Your task to perform on an android device: What's the weather today? Image 0: 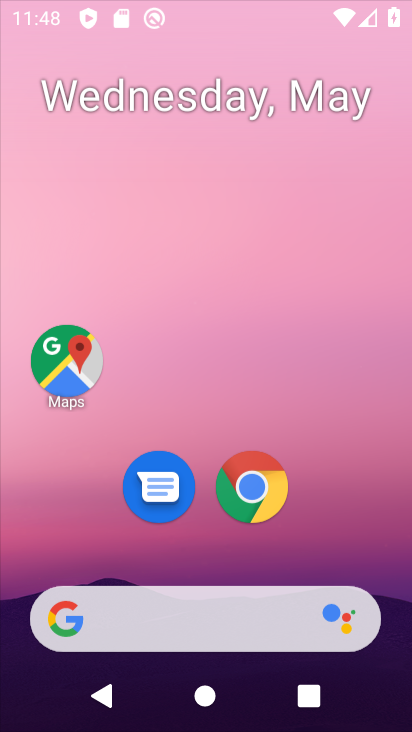
Step 0: drag from (295, 694) to (262, 79)
Your task to perform on an android device: What's the weather today? Image 1: 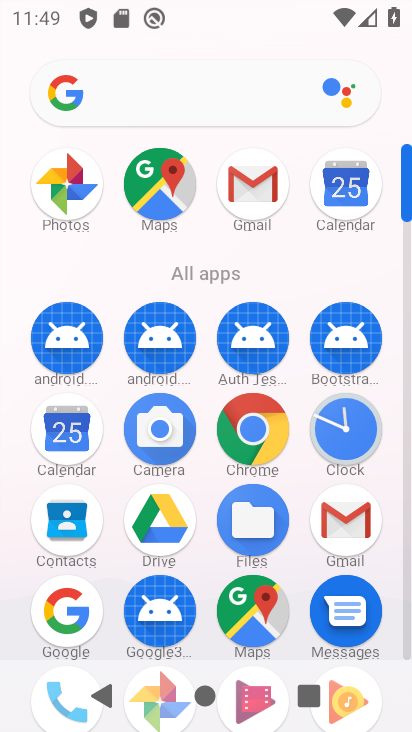
Step 1: press back button
Your task to perform on an android device: What's the weather today? Image 2: 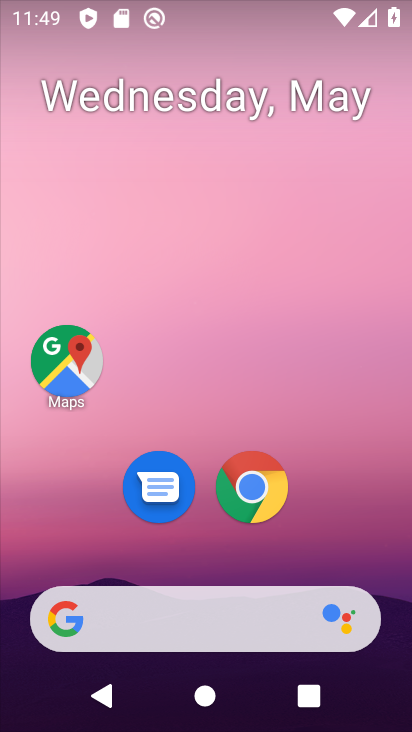
Step 2: drag from (27, 199) to (372, 301)
Your task to perform on an android device: What's the weather today? Image 3: 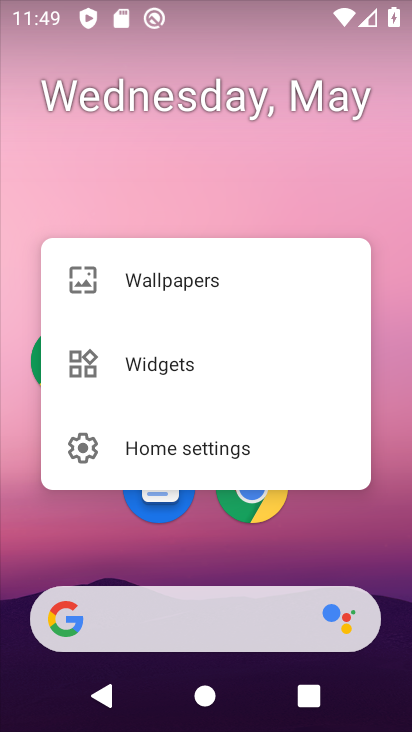
Step 3: drag from (40, 157) to (393, 218)
Your task to perform on an android device: What's the weather today? Image 4: 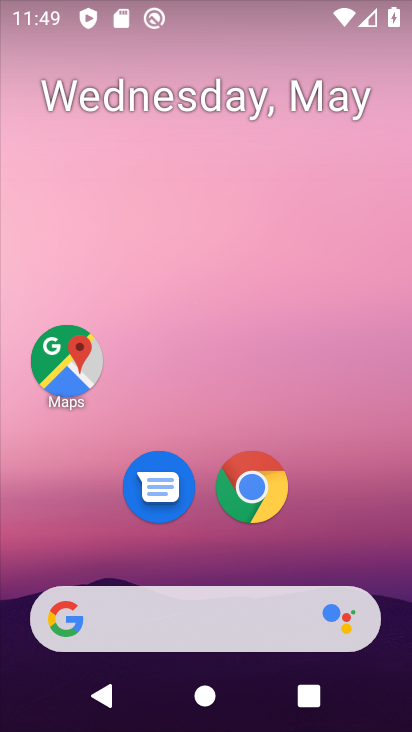
Step 4: drag from (183, 229) to (372, 323)
Your task to perform on an android device: What's the weather today? Image 5: 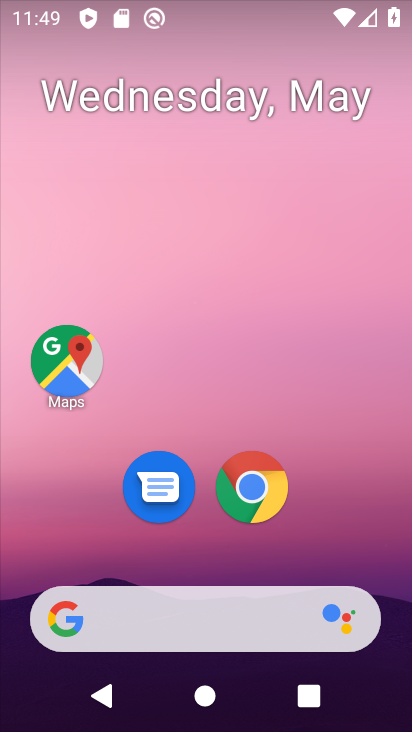
Step 5: drag from (30, 171) to (388, 385)
Your task to perform on an android device: What's the weather today? Image 6: 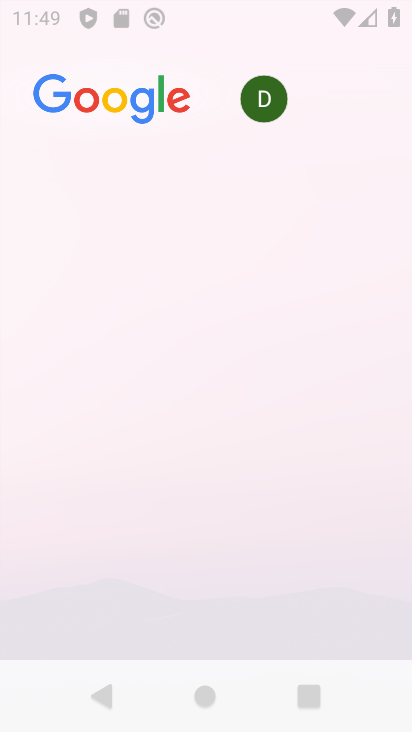
Step 6: drag from (16, 163) to (384, 285)
Your task to perform on an android device: What's the weather today? Image 7: 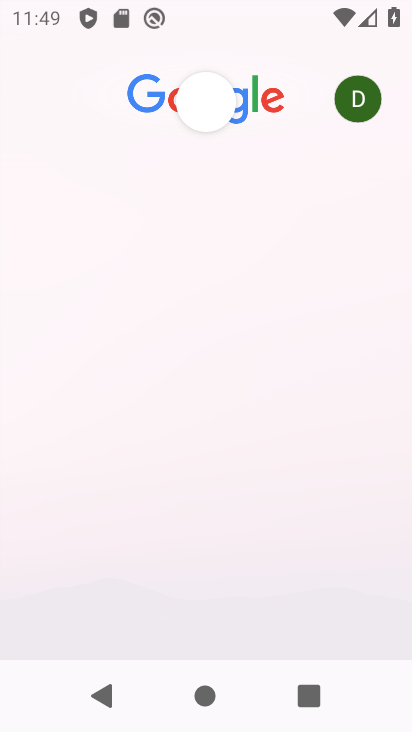
Step 7: drag from (232, 390) to (189, 50)
Your task to perform on an android device: What's the weather today? Image 8: 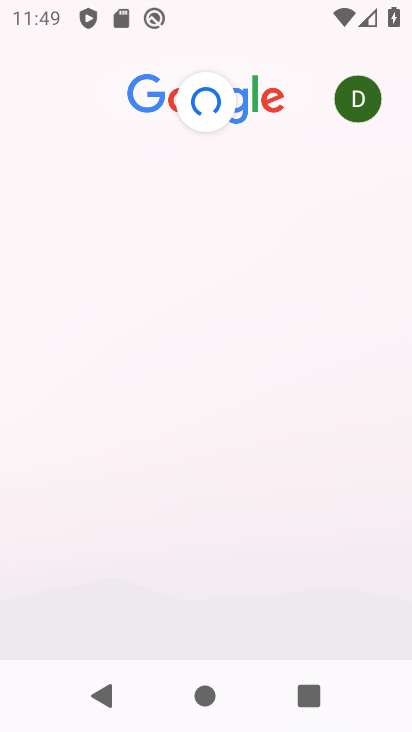
Step 8: drag from (225, 478) to (161, 156)
Your task to perform on an android device: What's the weather today? Image 9: 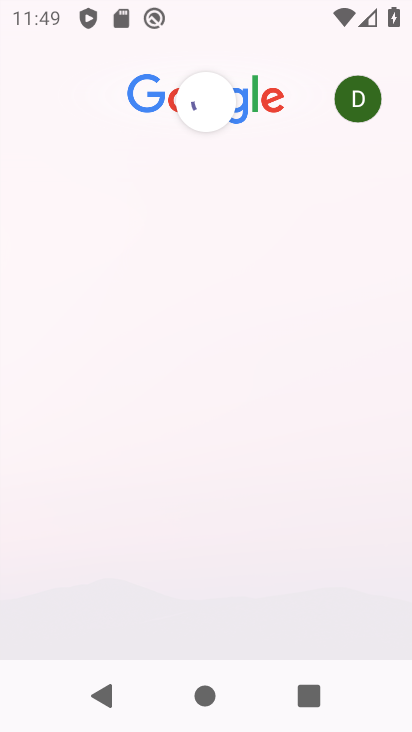
Step 9: drag from (235, 440) to (248, 161)
Your task to perform on an android device: What's the weather today? Image 10: 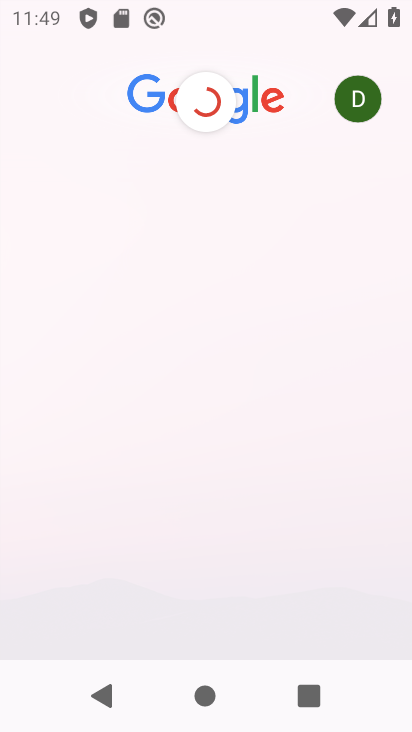
Step 10: drag from (239, 435) to (226, 66)
Your task to perform on an android device: What's the weather today? Image 11: 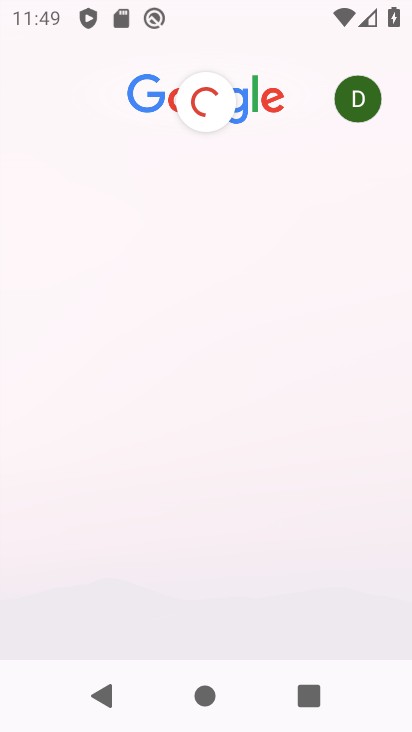
Step 11: drag from (188, 462) to (186, 169)
Your task to perform on an android device: What's the weather today? Image 12: 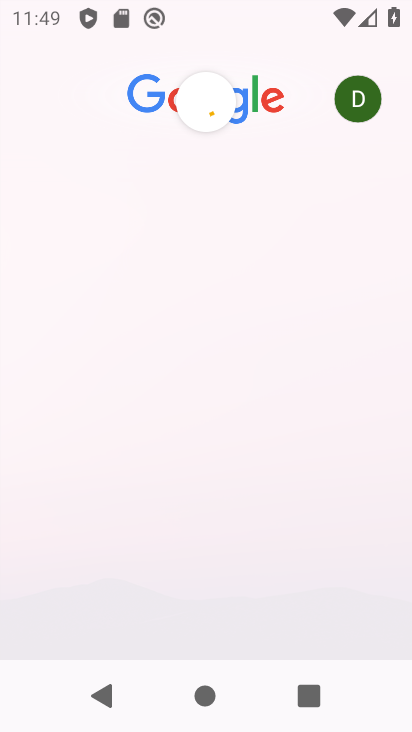
Step 12: drag from (214, 481) to (221, 183)
Your task to perform on an android device: What's the weather today? Image 13: 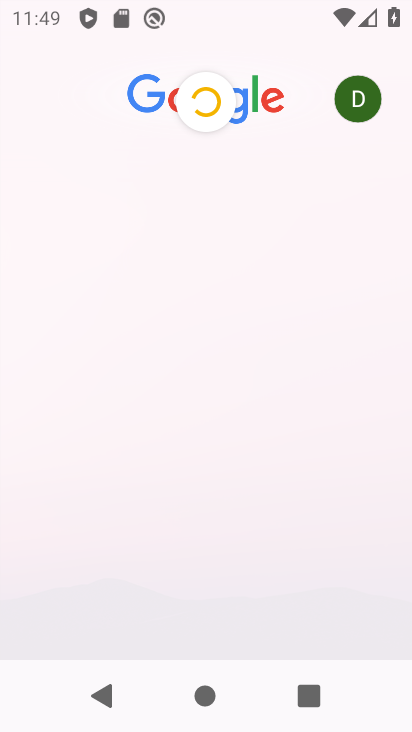
Step 13: drag from (262, 600) to (278, 310)
Your task to perform on an android device: What's the weather today? Image 14: 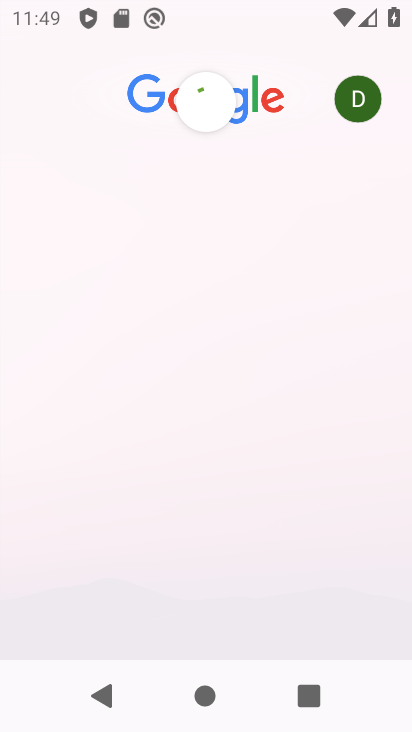
Step 14: drag from (249, 556) to (210, 264)
Your task to perform on an android device: What's the weather today? Image 15: 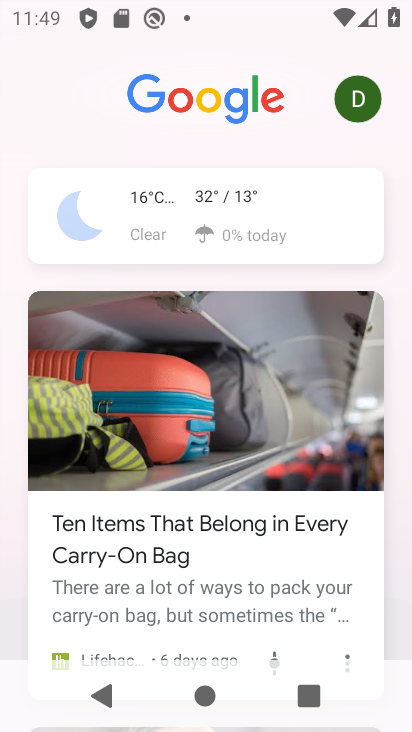
Step 15: click (143, 221)
Your task to perform on an android device: What's the weather today? Image 16: 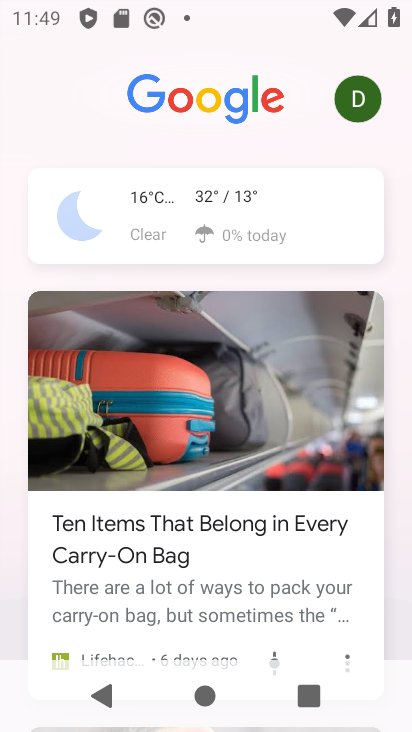
Step 16: click (148, 220)
Your task to perform on an android device: What's the weather today? Image 17: 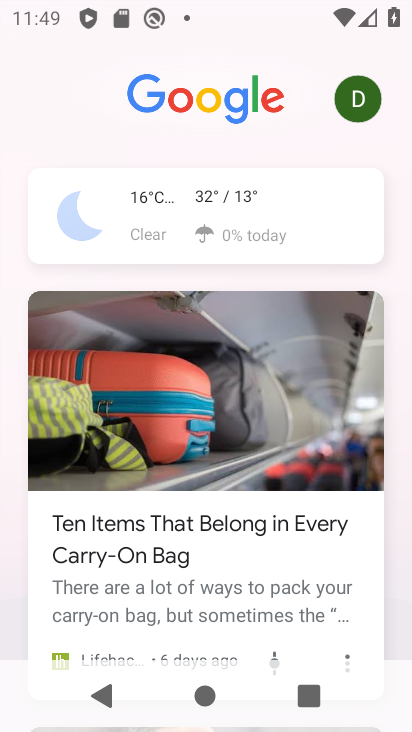
Step 17: click (148, 220)
Your task to perform on an android device: What's the weather today? Image 18: 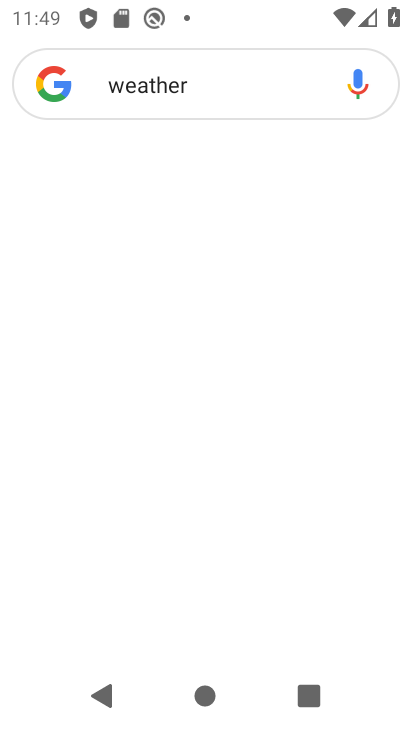
Step 18: click (150, 217)
Your task to perform on an android device: What's the weather today? Image 19: 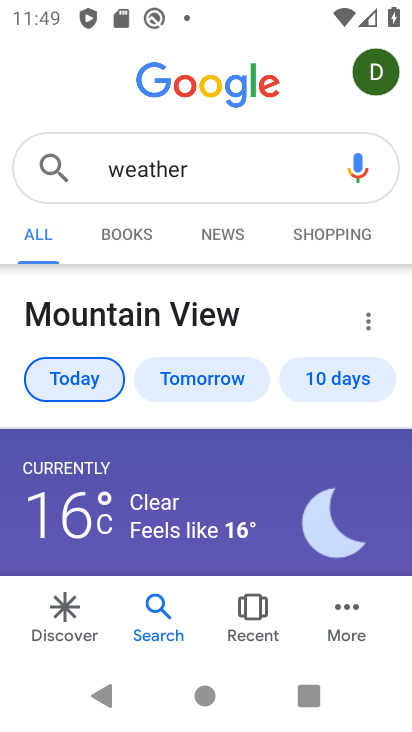
Step 19: task complete